Your task to perform on an android device: Open notification settings Image 0: 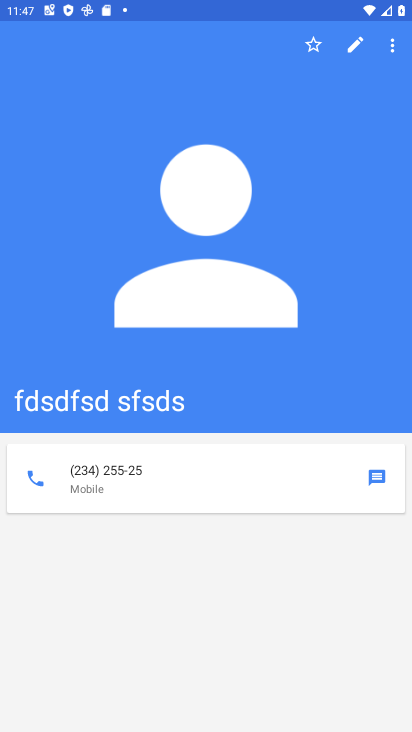
Step 0: press home button
Your task to perform on an android device: Open notification settings Image 1: 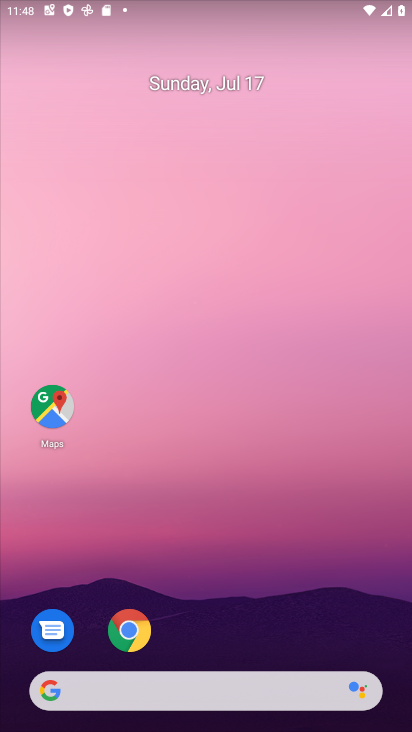
Step 1: drag from (281, 651) to (292, 16)
Your task to perform on an android device: Open notification settings Image 2: 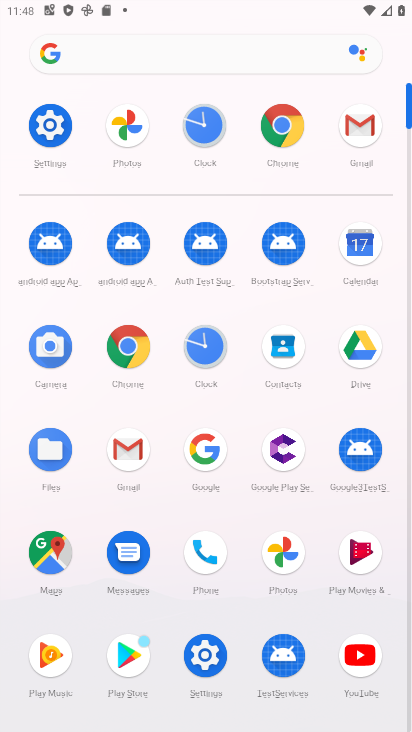
Step 2: click (59, 136)
Your task to perform on an android device: Open notification settings Image 3: 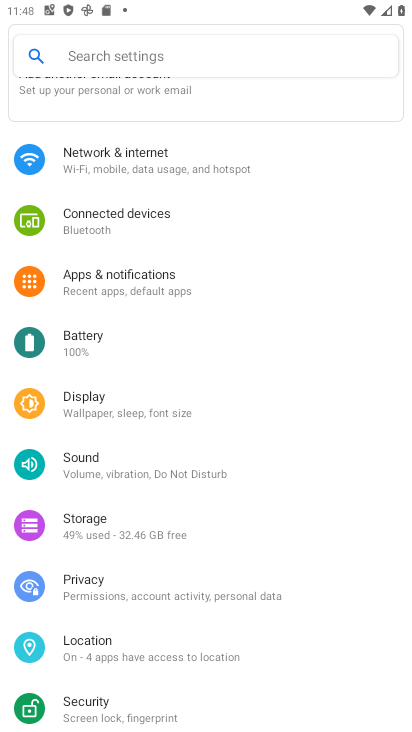
Step 3: click (168, 287)
Your task to perform on an android device: Open notification settings Image 4: 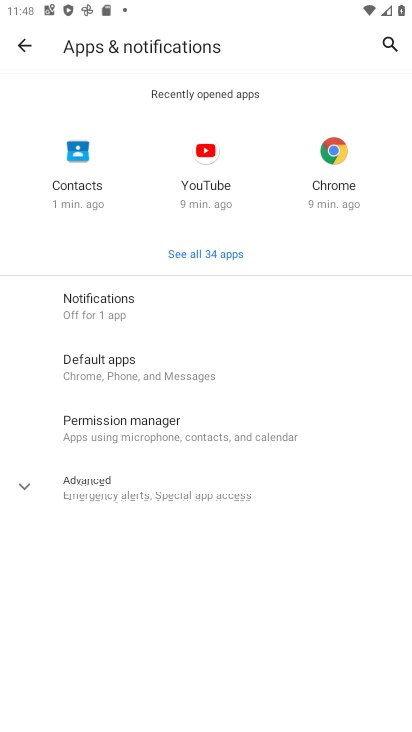
Step 4: task complete